Your task to perform on an android device: toggle show notifications on the lock screen Image 0: 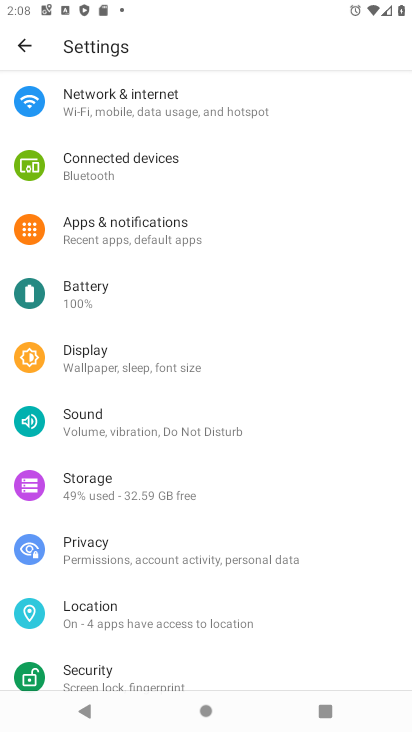
Step 0: click (125, 233)
Your task to perform on an android device: toggle show notifications on the lock screen Image 1: 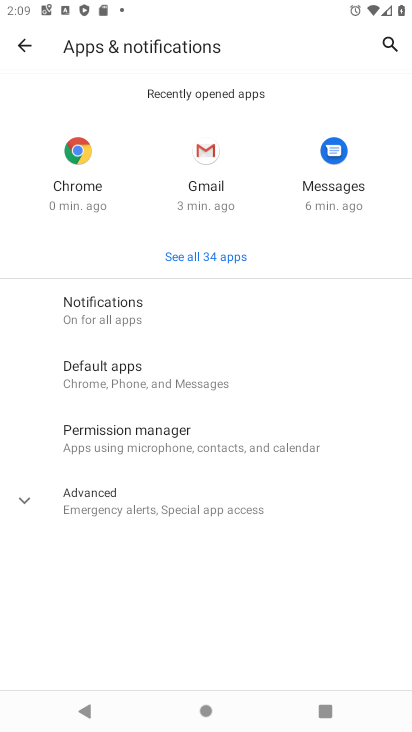
Step 1: click (38, 497)
Your task to perform on an android device: toggle show notifications on the lock screen Image 2: 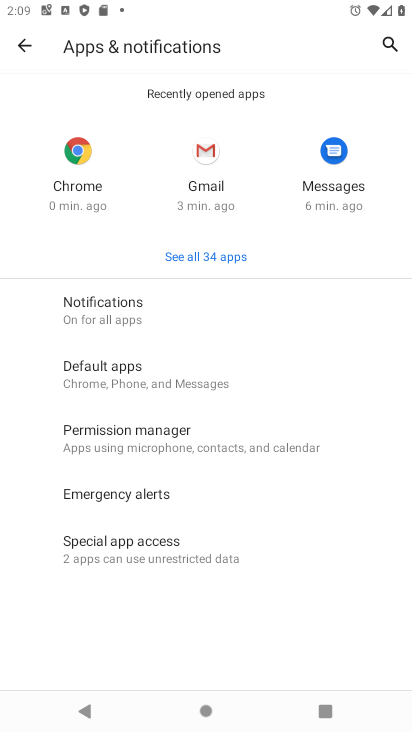
Step 2: click (148, 311)
Your task to perform on an android device: toggle show notifications on the lock screen Image 3: 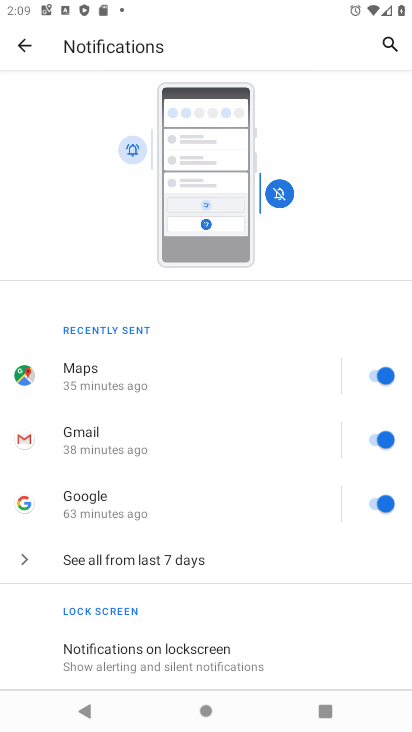
Step 3: click (243, 659)
Your task to perform on an android device: toggle show notifications on the lock screen Image 4: 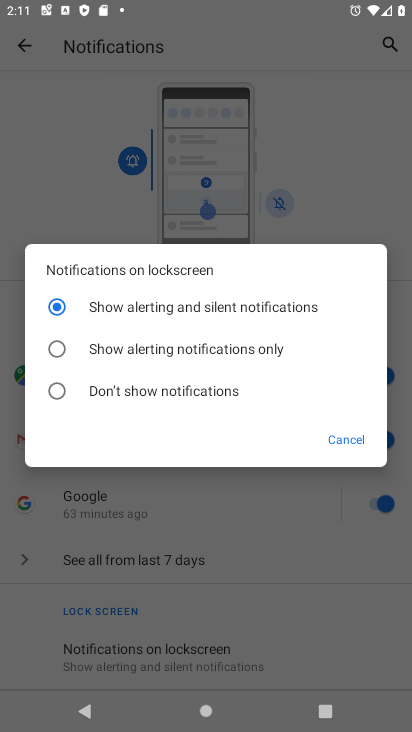
Step 4: task complete